Your task to perform on an android device: What's the weather today? Image 0: 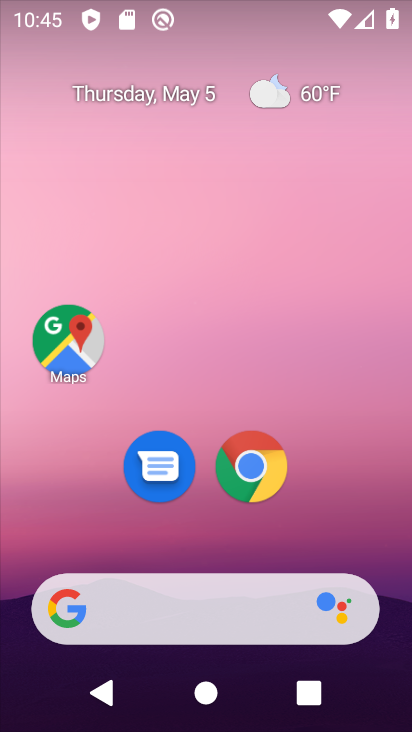
Step 0: drag from (195, 575) to (330, 183)
Your task to perform on an android device: What's the weather today? Image 1: 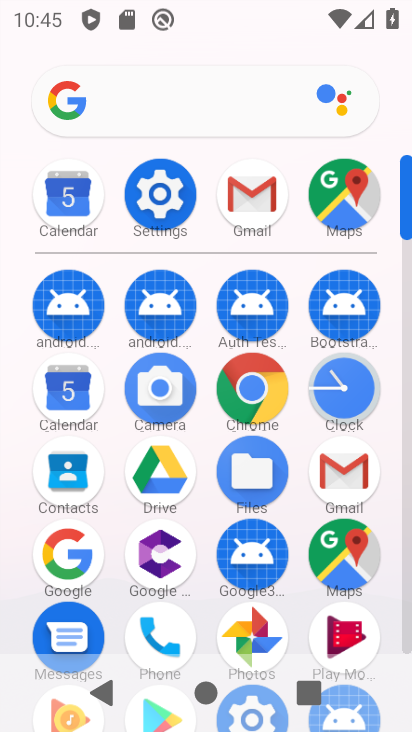
Step 1: click (43, 537)
Your task to perform on an android device: What's the weather today? Image 2: 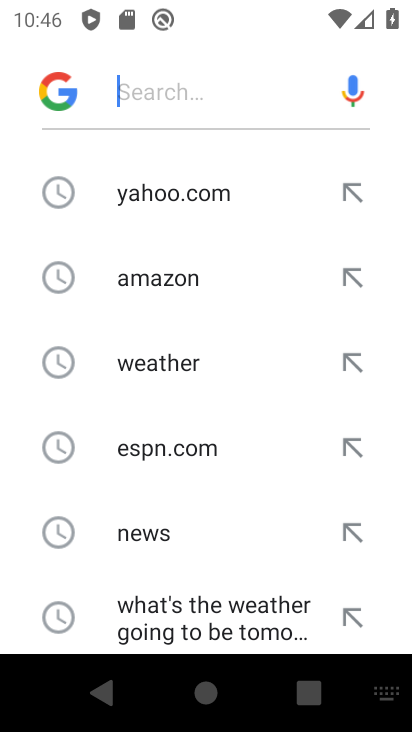
Step 2: click (167, 364)
Your task to perform on an android device: What's the weather today? Image 3: 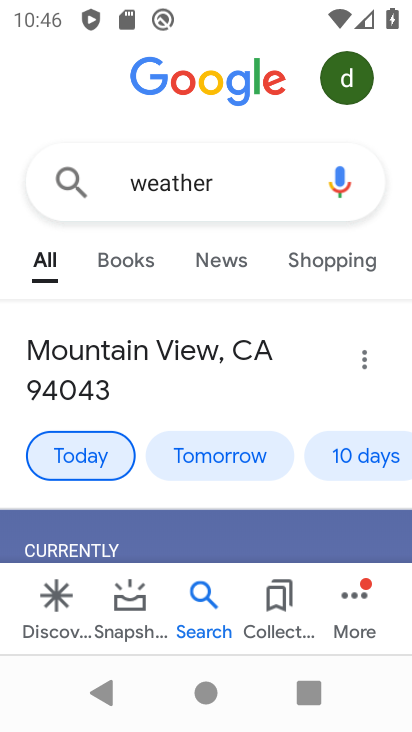
Step 3: task complete